Your task to perform on an android device: find photos in the google photos app Image 0: 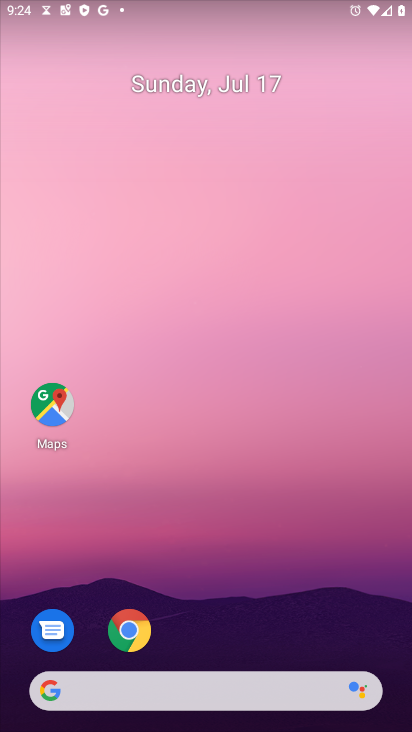
Step 0: drag from (210, 630) to (190, 241)
Your task to perform on an android device: find photos in the google photos app Image 1: 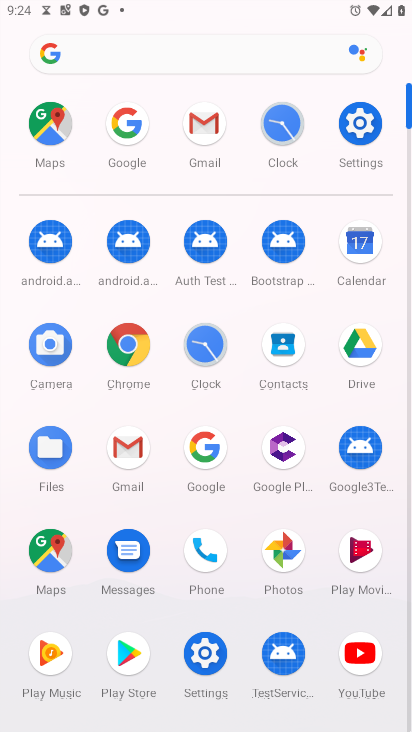
Step 1: click (286, 563)
Your task to perform on an android device: find photos in the google photos app Image 2: 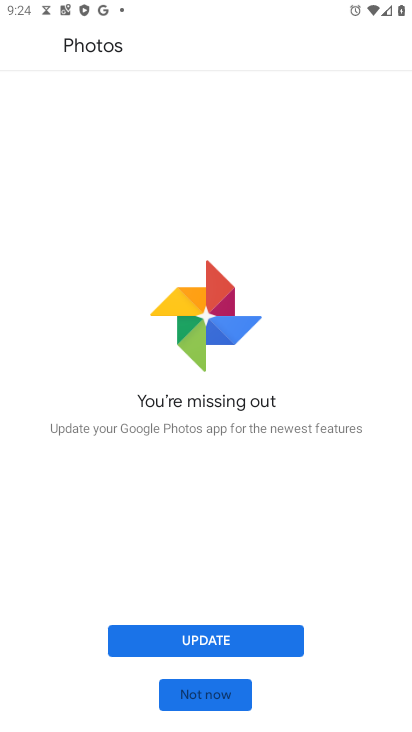
Step 2: click (227, 634)
Your task to perform on an android device: find photos in the google photos app Image 3: 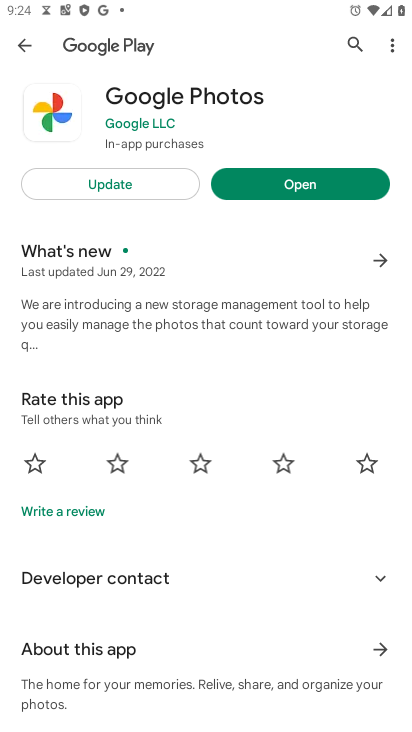
Step 3: click (303, 179)
Your task to perform on an android device: find photos in the google photos app Image 4: 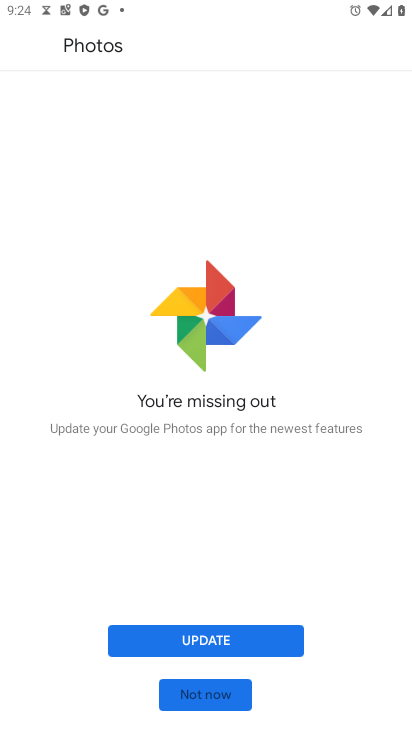
Step 4: click (236, 644)
Your task to perform on an android device: find photos in the google photos app Image 5: 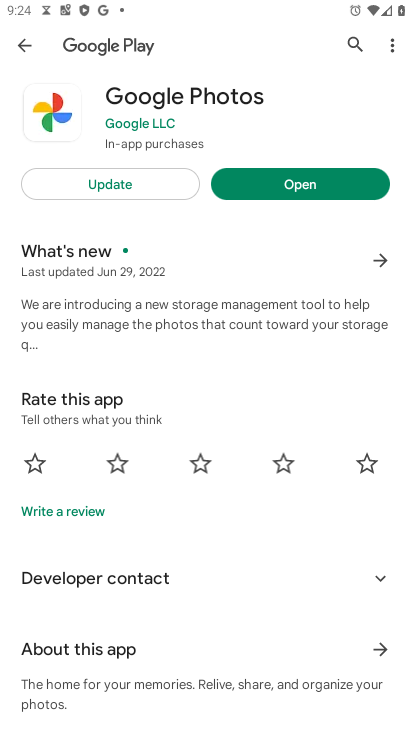
Step 5: click (173, 186)
Your task to perform on an android device: find photos in the google photos app Image 6: 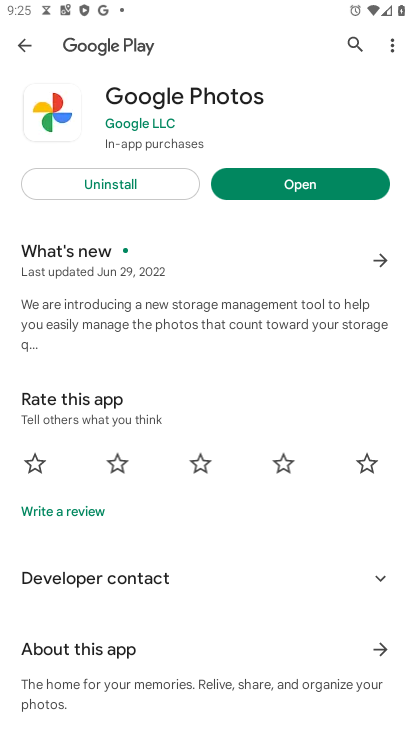
Step 6: click (281, 187)
Your task to perform on an android device: find photos in the google photos app Image 7: 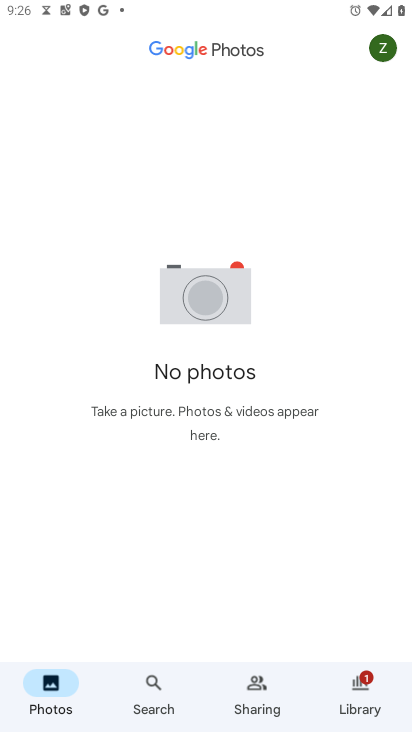
Step 7: click (369, 702)
Your task to perform on an android device: find photos in the google photos app Image 8: 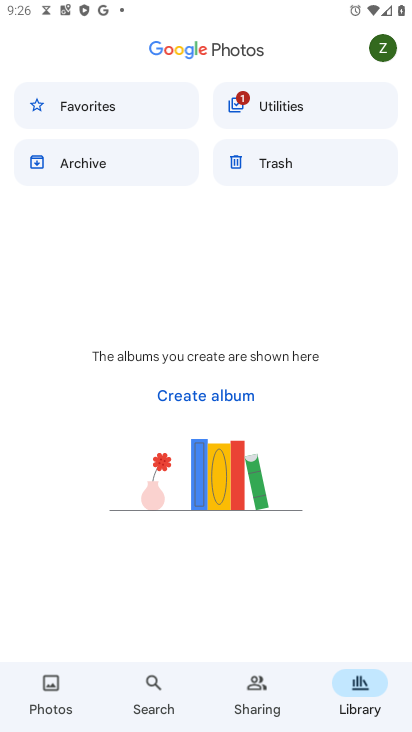
Step 8: click (37, 716)
Your task to perform on an android device: find photos in the google photos app Image 9: 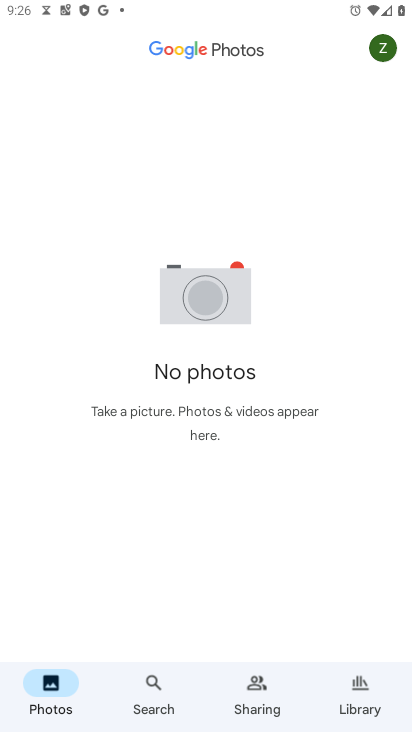
Step 9: task complete